Your task to perform on an android device: check battery use Image 0: 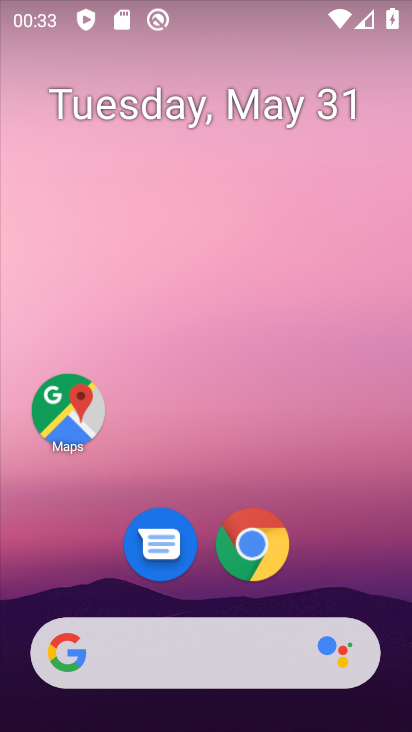
Step 0: drag from (39, 595) to (181, 6)
Your task to perform on an android device: check battery use Image 1: 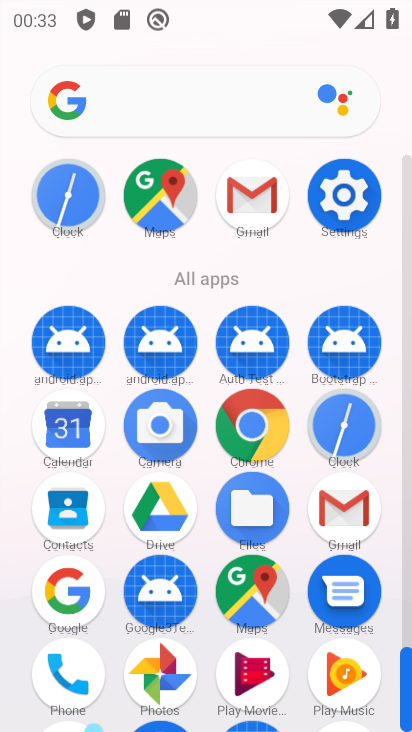
Step 1: drag from (225, 475) to (286, 183)
Your task to perform on an android device: check battery use Image 2: 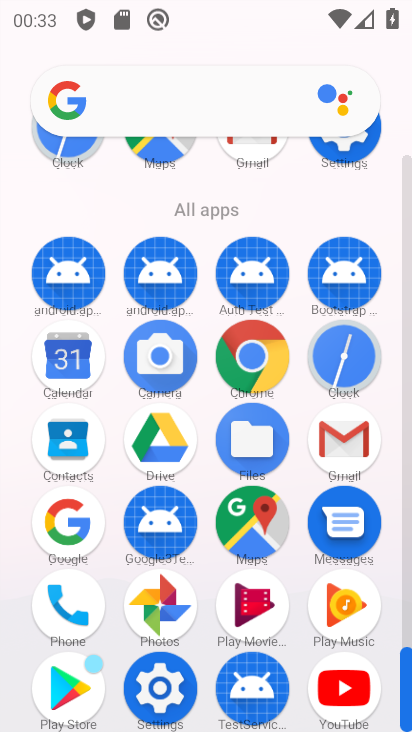
Step 2: click (148, 698)
Your task to perform on an android device: check battery use Image 3: 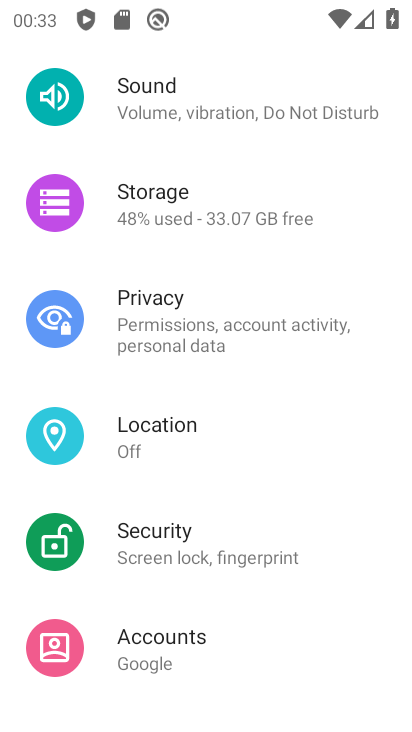
Step 3: drag from (256, 102) to (252, 636)
Your task to perform on an android device: check battery use Image 4: 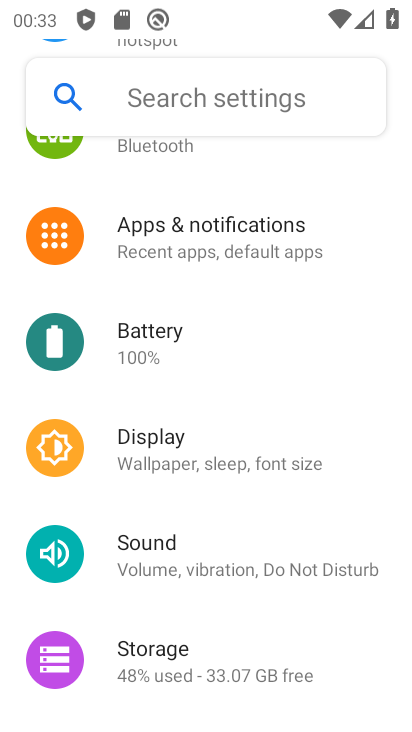
Step 4: click (207, 353)
Your task to perform on an android device: check battery use Image 5: 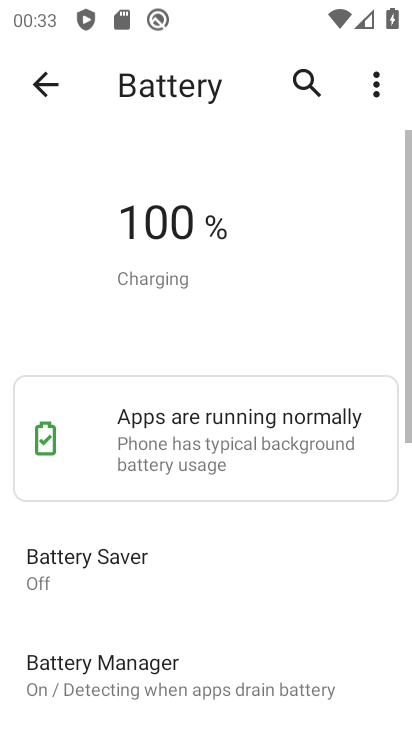
Step 5: click (383, 48)
Your task to perform on an android device: check battery use Image 6: 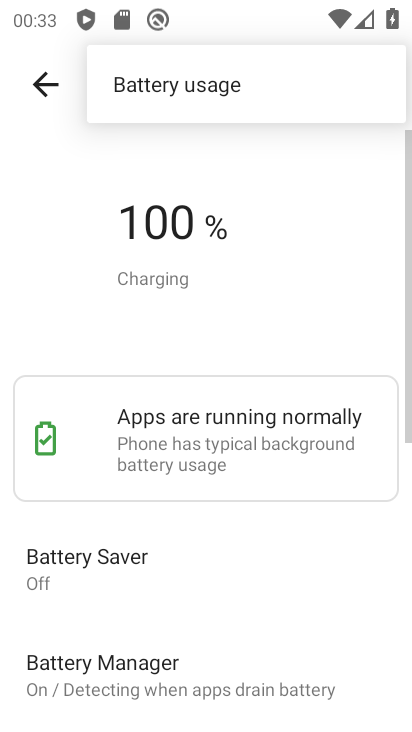
Step 6: click (367, 113)
Your task to perform on an android device: check battery use Image 7: 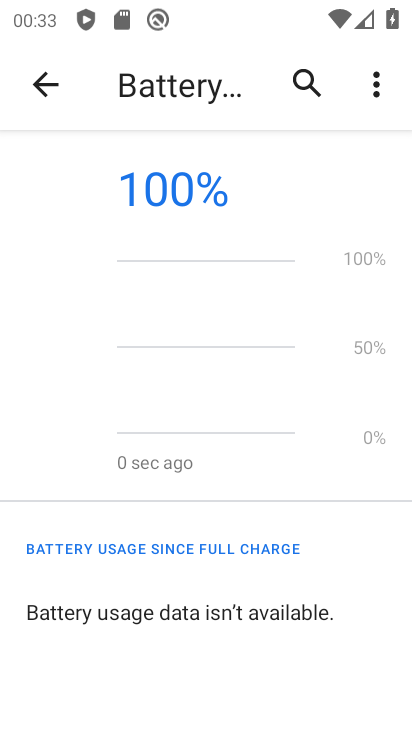
Step 7: task complete